Your task to perform on an android device: Show me popular videos on Youtube Image 0: 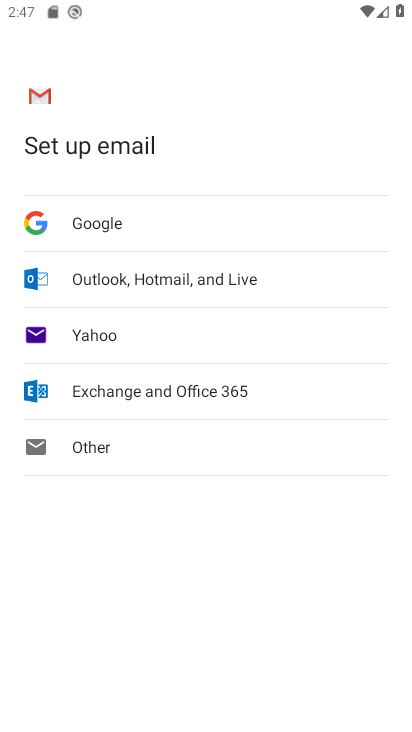
Step 0: press home button
Your task to perform on an android device: Show me popular videos on Youtube Image 1: 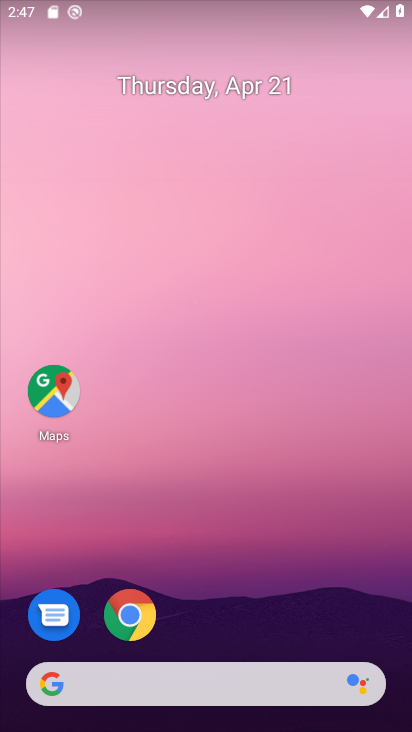
Step 1: drag from (391, 615) to (350, 162)
Your task to perform on an android device: Show me popular videos on Youtube Image 2: 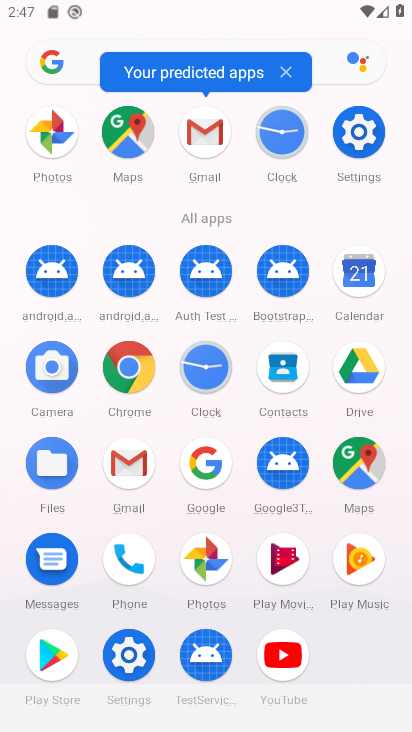
Step 2: click (276, 652)
Your task to perform on an android device: Show me popular videos on Youtube Image 3: 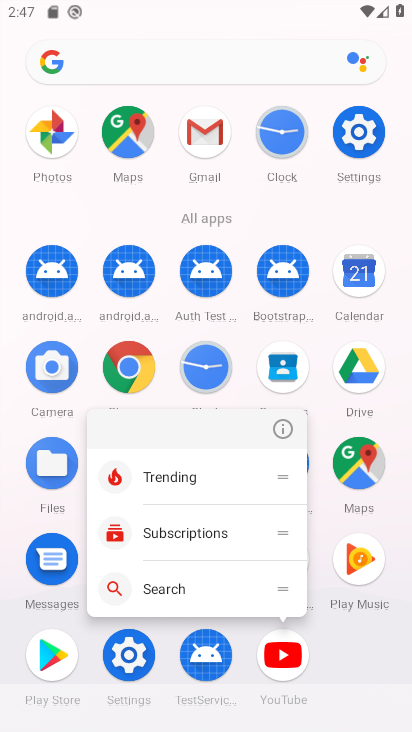
Step 3: click (272, 651)
Your task to perform on an android device: Show me popular videos on Youtube Image 4: 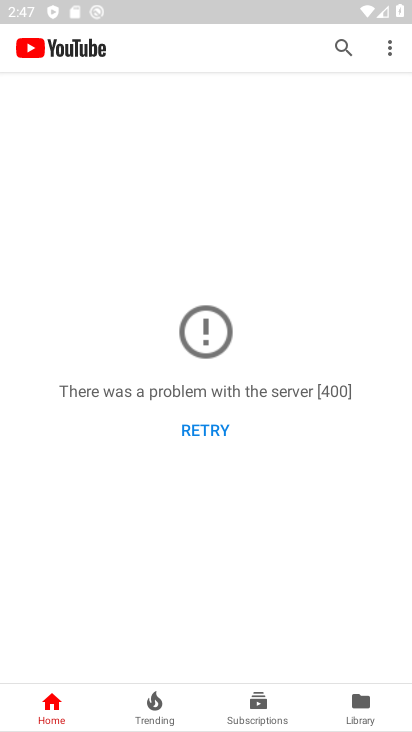
Step 4: click (361, 705)
Your task to perform on an android device: Show me popular videos on Youtube Image 5: 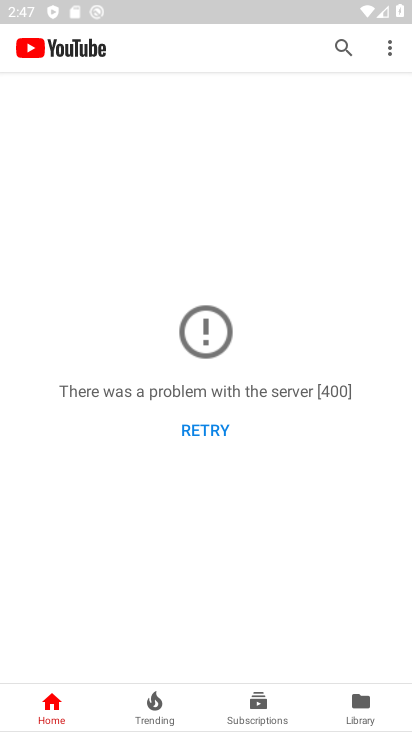
Step 5: click (361, 705)
Your task to perform on an android device: Show me popular videos on Youtube Image 6: 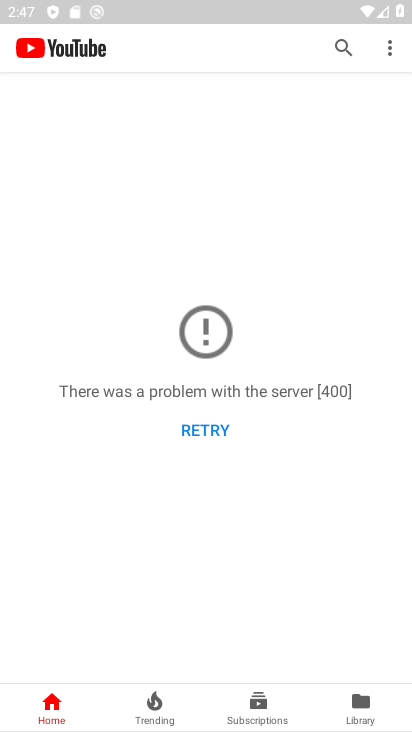
Step 6: click (391, 53)
Your task to perform on an android device: Show me popular videos on Youtube Image 7: 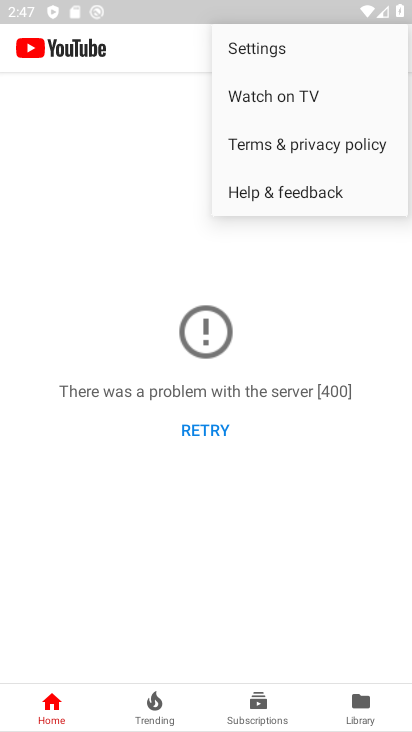
Step 7: task complete